Your task to perform on an android device: turn notification dots on Image 0: 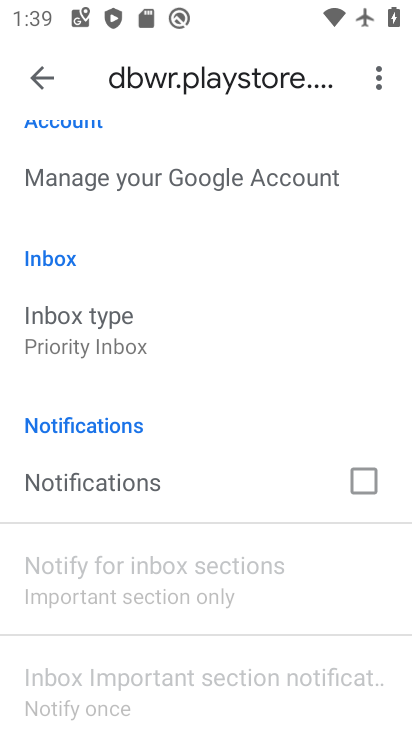
Step 0: press home button
Your task to perform on an android device: turn notification dots on Image 1: 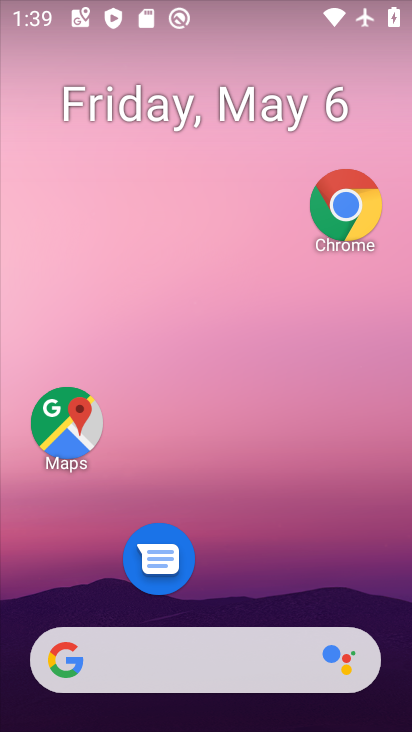
Step 1: drag from (219, 648) to (306, 97)
Your task to perform on an android device: turn notification dots on Image 2: 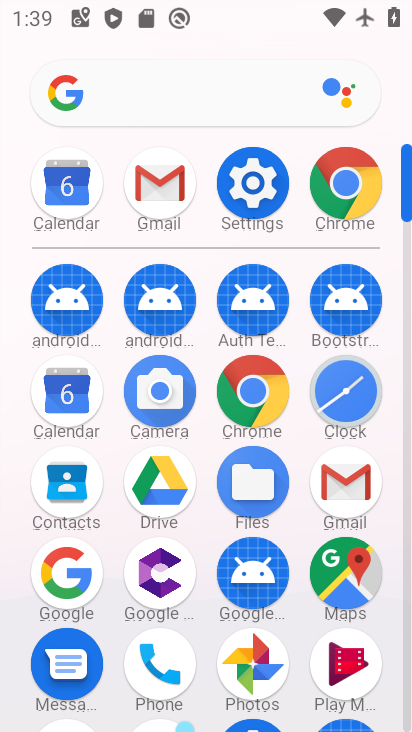
Step 2: click (261, 187)
Your task to perform on an android device: turn notification dots on Image 3: 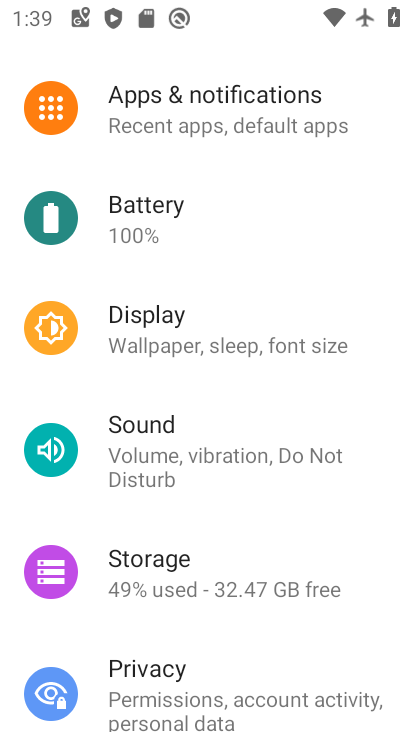
Step 3: click (247, 118)
Your task to perform on an android device: turn notification dots on Image 4: 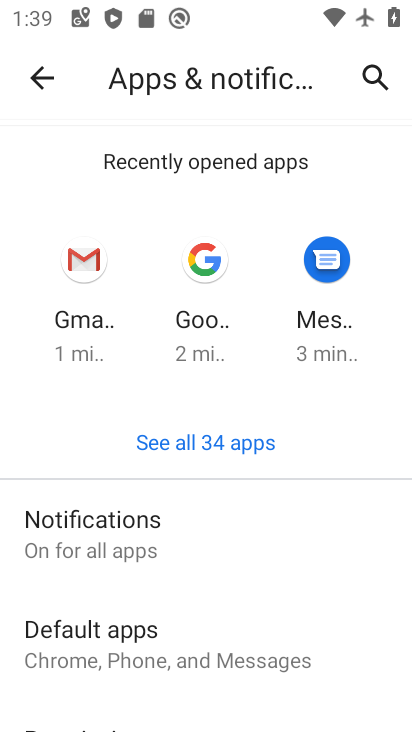
Step 4: click (137, 541)
Your task to perform on an android device: turn notification dots on Image 5: 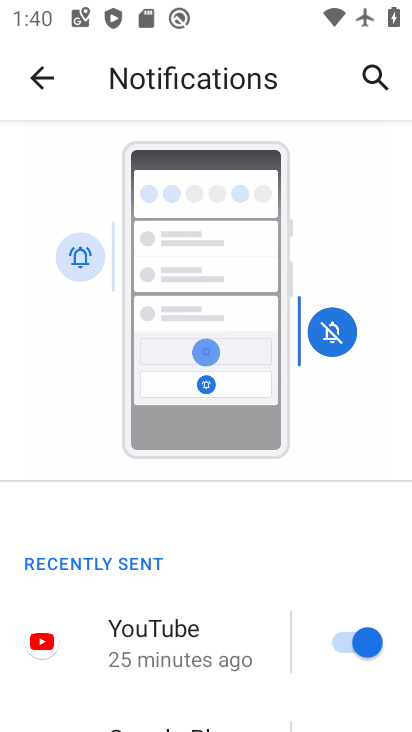
Step 5: drag from (182, 645) to (316, 111)
Your task to perform on an android device: turn notification dots on Image 6: 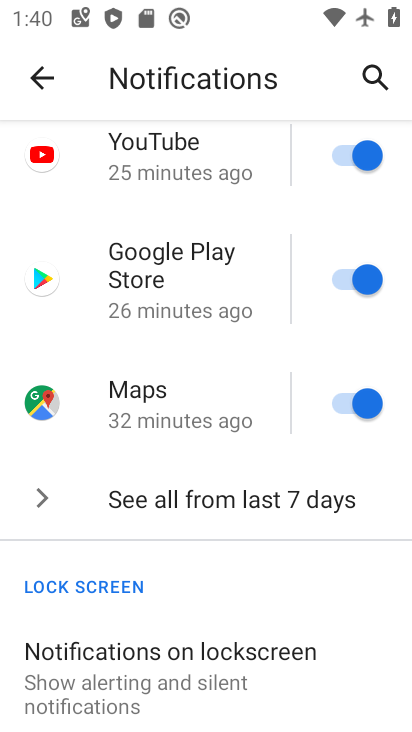
Step 6: drag from (181, 624) to (302, 148)
Your task to perform on an android device: turn notification dots on Image 7: 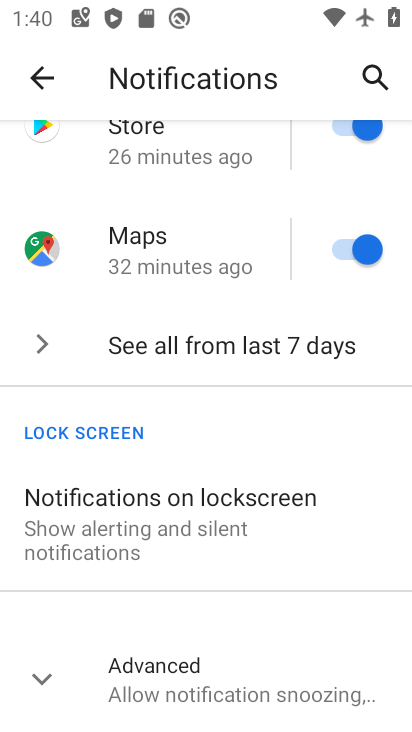
Step 7: click (161, 662)
Your task to perform on an android device: turn notification dots on Image 8: 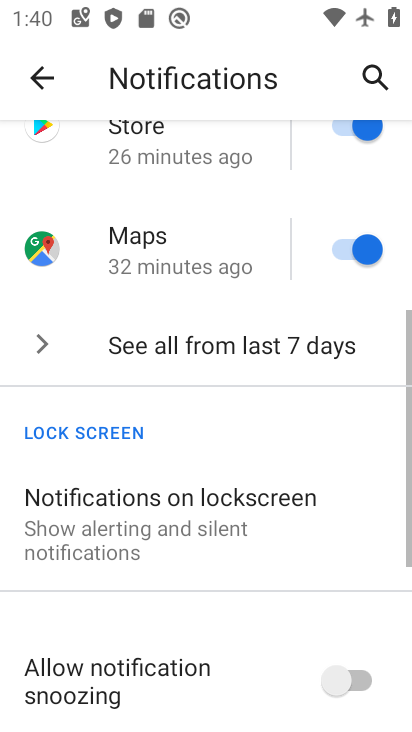
Step 8: task complete